Your task to perform on an android device: Do I have any events this weekend? Image 0: 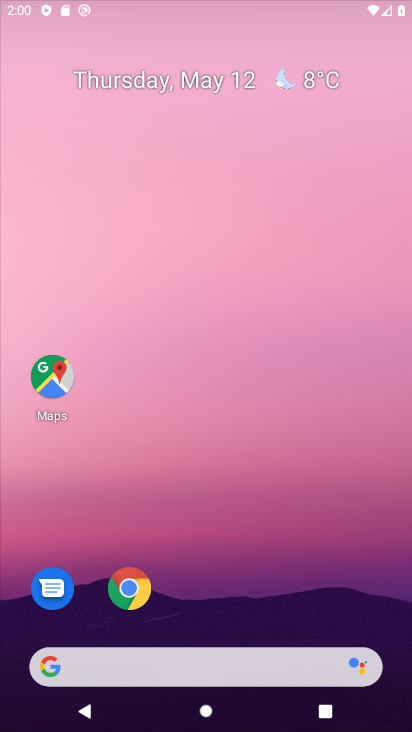
Step 0: drag from (266, 620) to (257, 168)
Your task to perform on an android device: Do I have any events this weekend? Image 1: 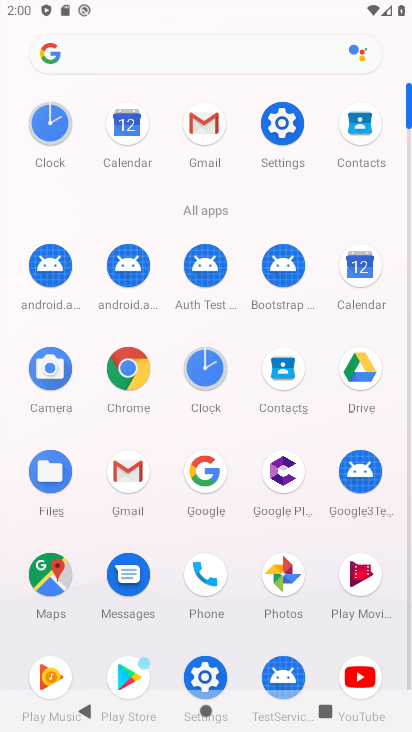
Step 1: click (141, 140)
Your task to perform on an android device: Do I have any events this weekend? Image 2: 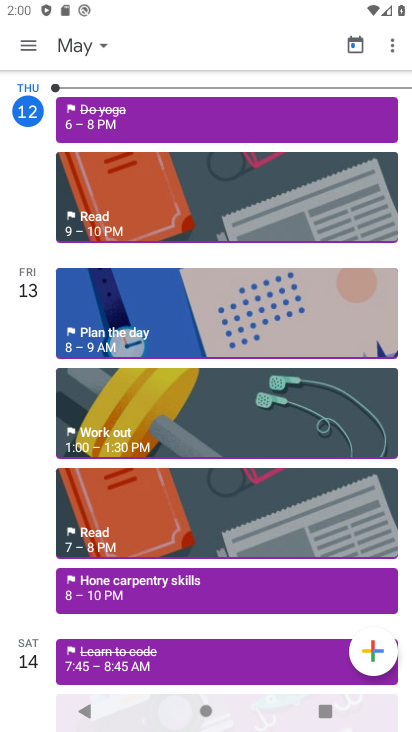
Step 2: task complete